Your task to perform on an android device: toggle wifi Image 0: 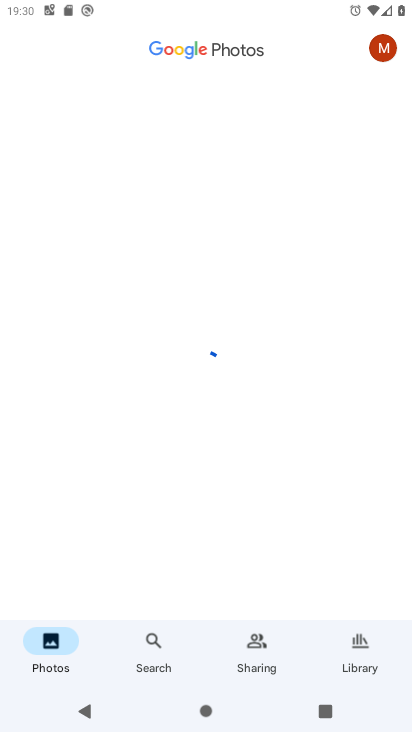
Step 0: press home button
Your task to perform on an android device: toggle wifi Image 1: 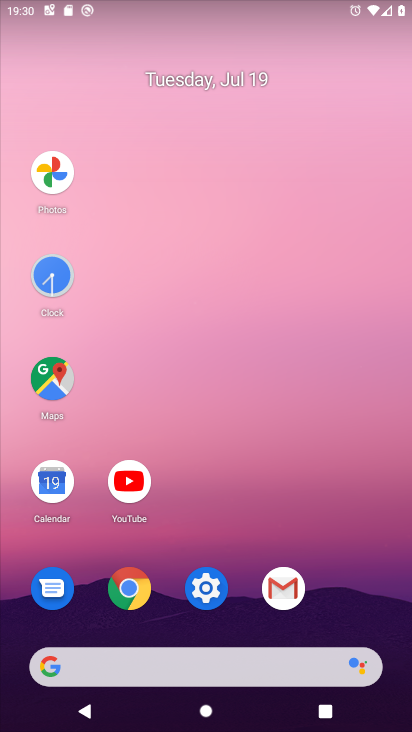
Step 1: click (203, 595)
Your task to perform on an android device: toggle wifi Image 2: 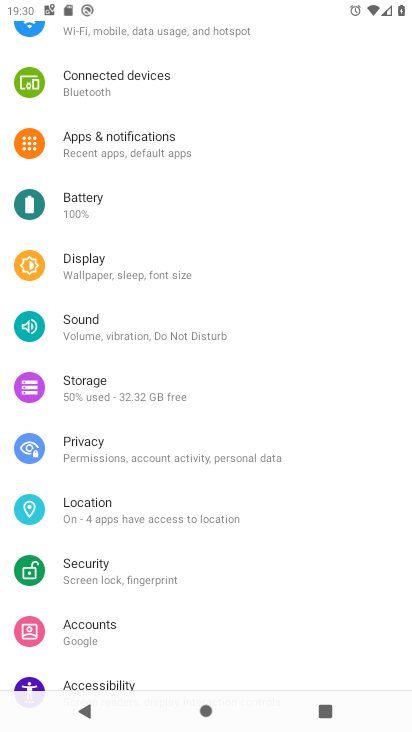
Step 2: drag from (265, 102) to (310, 622)
Your task to perform on an android device: toggle wifi Image 3: 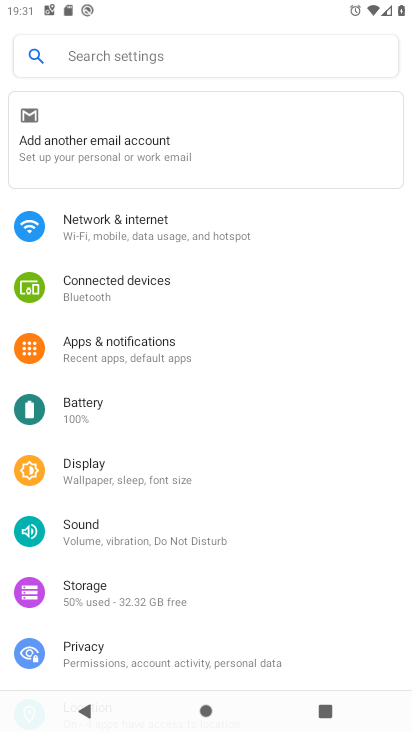
Step 3: click (134, 215)
Your task to perform on an android device: toggle wifi Image 4: 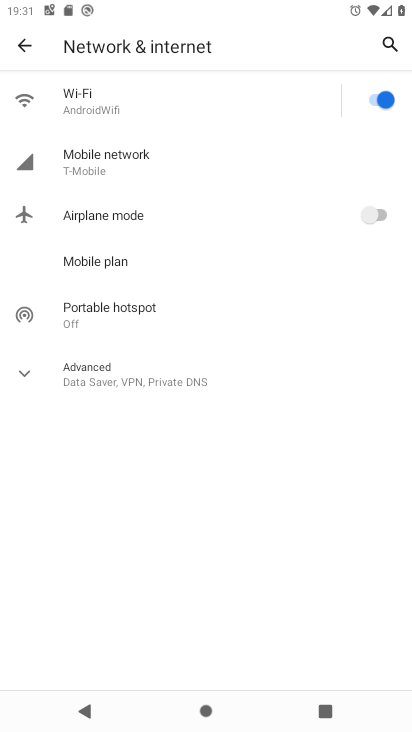
Step 4: click (386, 98)
Your task to perform on an android device: toggle wifi Image 5: 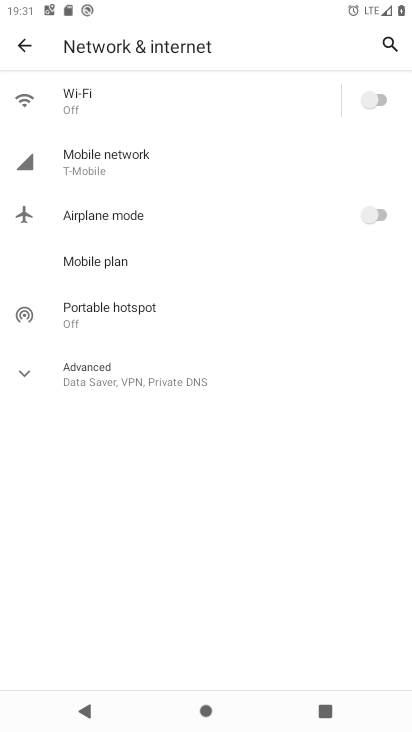
Step 5: task complete